Your task to perform on an android device: find which apps use the phone's location Image 0: 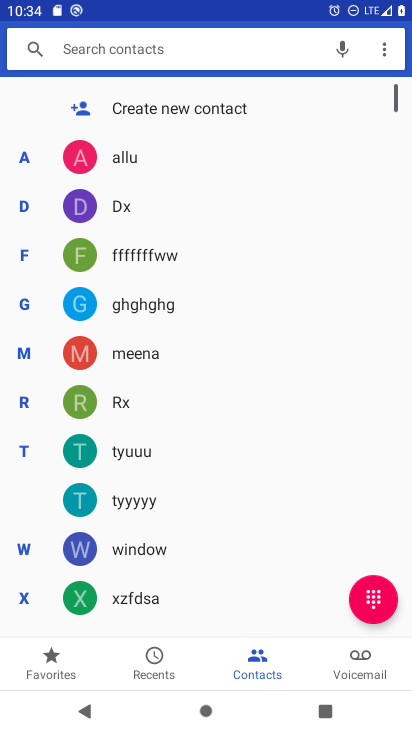
Step 0: press home button
Your task to perform on an android device: find which apps use the phone's location Image 1: 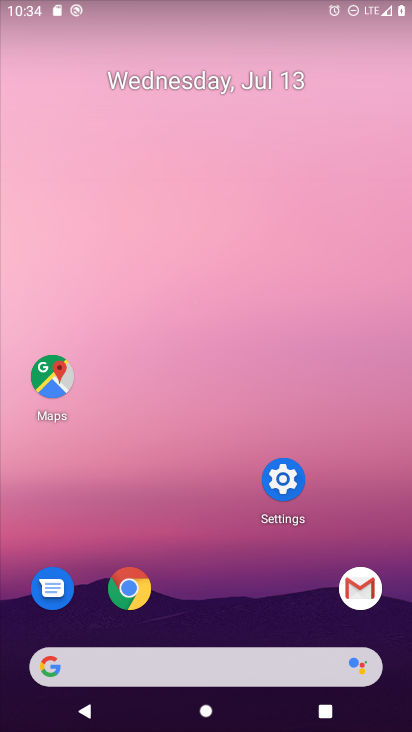
Step 1: click (279, 484)
Your task to perform on an android device: find which apps use the phone's location Image 2: 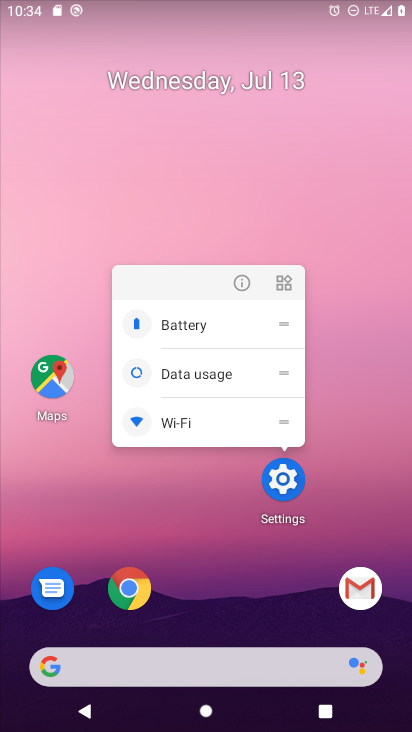
Step 2: click (279, 484)
Your task to perform on an android device: find which apps use the phone's location Image 3: 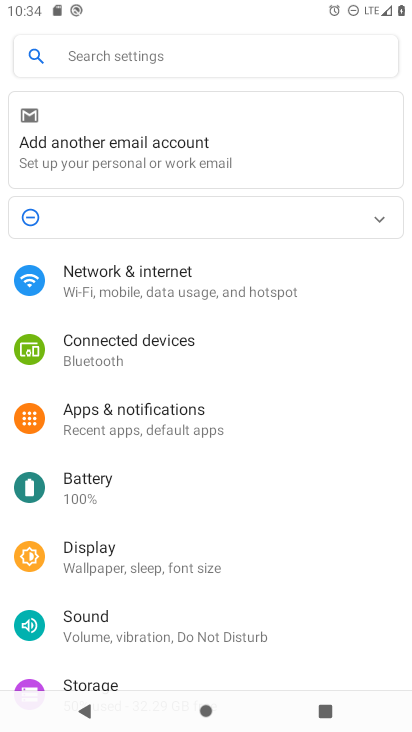
Step 3: drag from (134, 472) to (181, 338)
Your task to perform on an android device: find which apps use the phone's location Image 4: 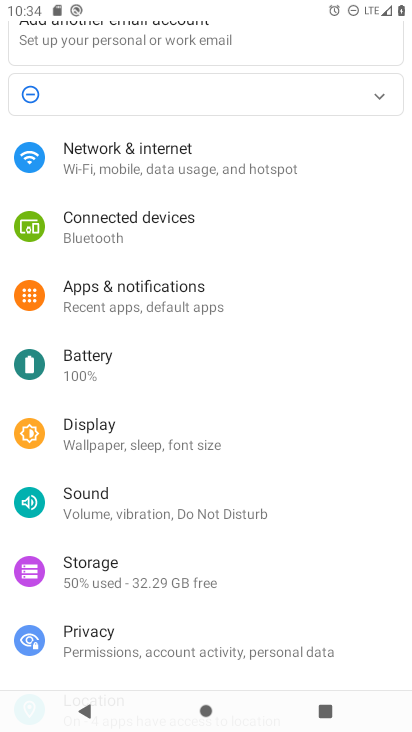
Step 4: drag from (125, 599) to (164, 471)
Your task to perform on an android device: find which apps use the phone's location Image 5: 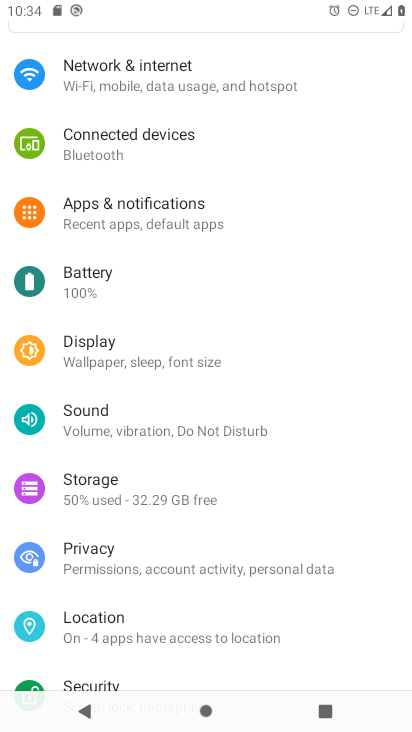
Step 5: click (123, 615)
Your task to perform on an android device: find which apps use the phone's location Image 6: 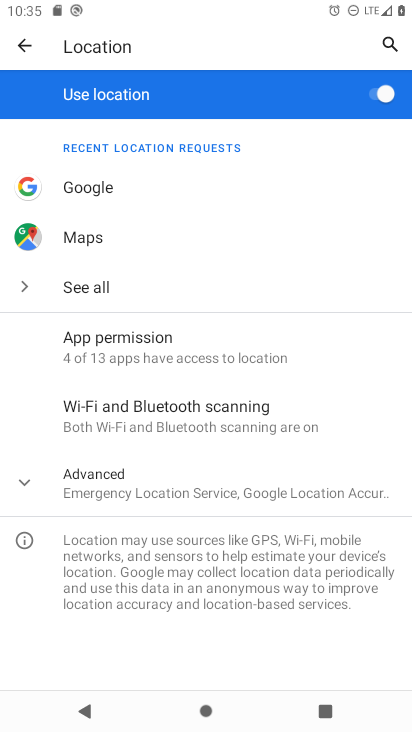
Step 6: task complete